Your task to perform on an android device: turn on the 24-hour format for clock Image 0: 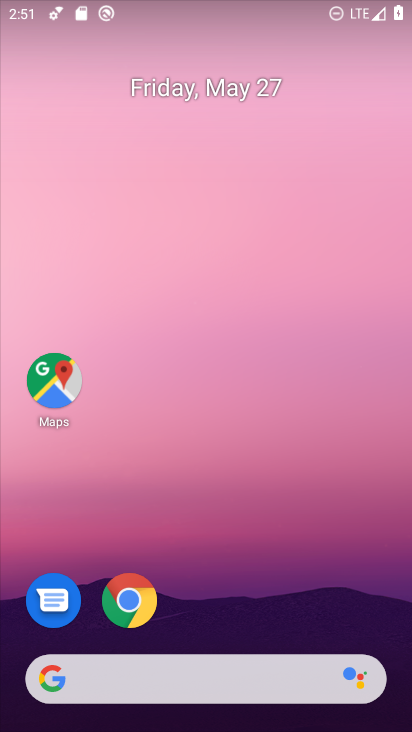
Step 0: drag from (240, 727) to (214, 63)
Your task to perform on an android device: turn on the 24-hour format for clock Image 1: 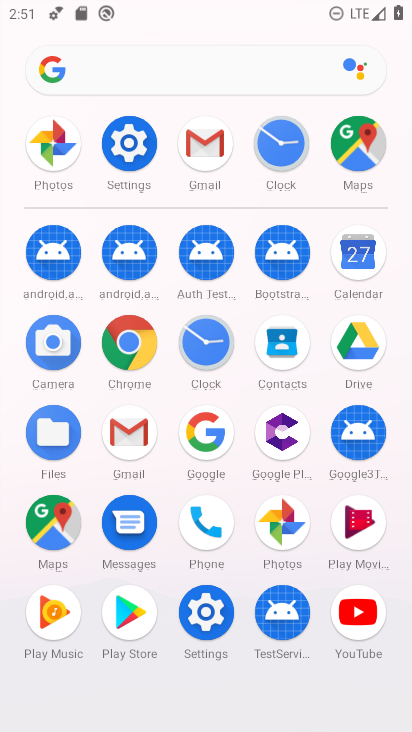
Step 1: click (213, 345)
Your task to perform on an android device: turn on the 24-hour format for clock Image 2: 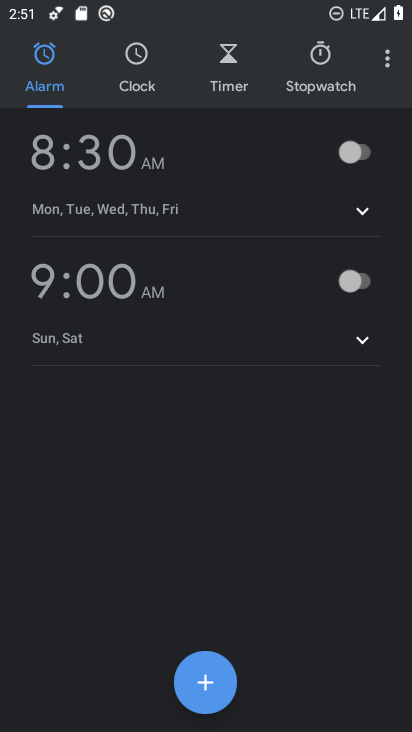
Step 2: click (388, 63)
Your task to perform on an android device: turn on the 24-hour format for clock Image 3: 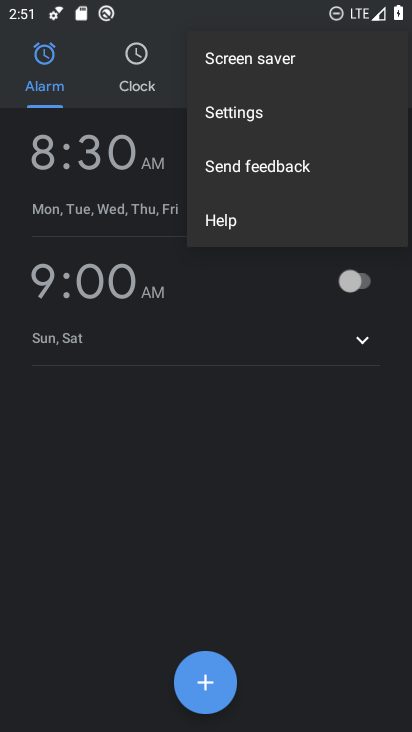
Step 3: click (232, 105)
Your task to perform on an android device: turn on the 24-hour format for clock Image 4: 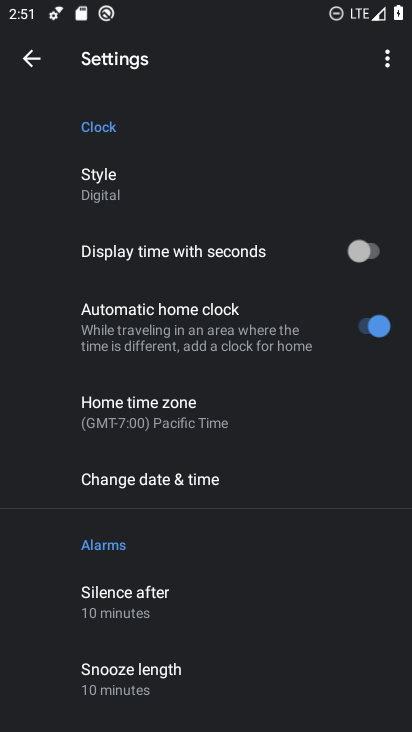
Step 4: click (142, 473)
Your task to perform on an android device: turn on the 24-hour format for clock Image 5: 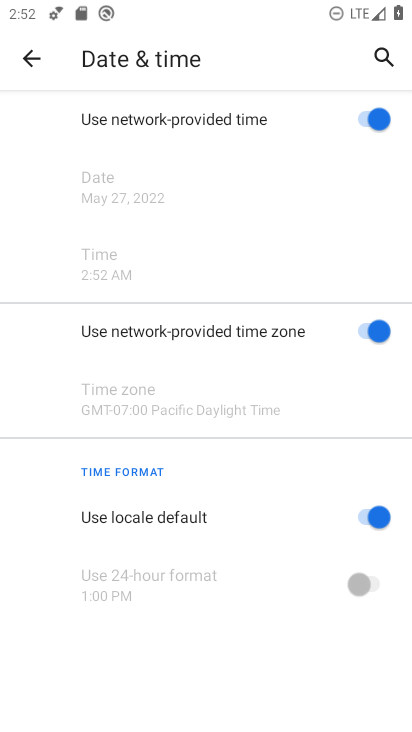
Step 5: click (364, 517)
Your task to perform on an android device: turn on the 24-hour format for clock Image 6: 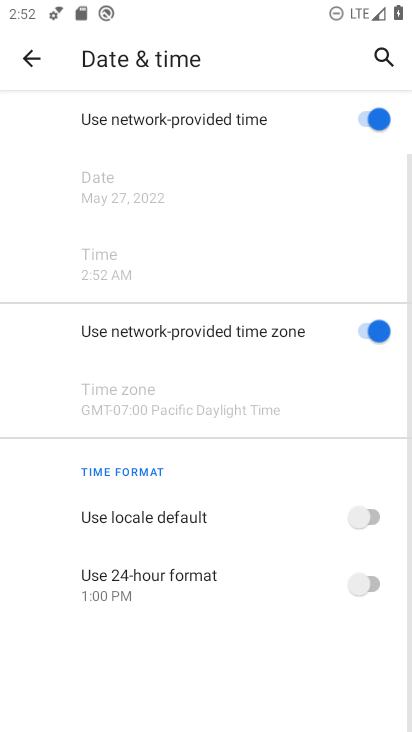
Step 6: click (376, 580)
Your task to perform on an android device: turn on the 24-hour format for clock Image 7: 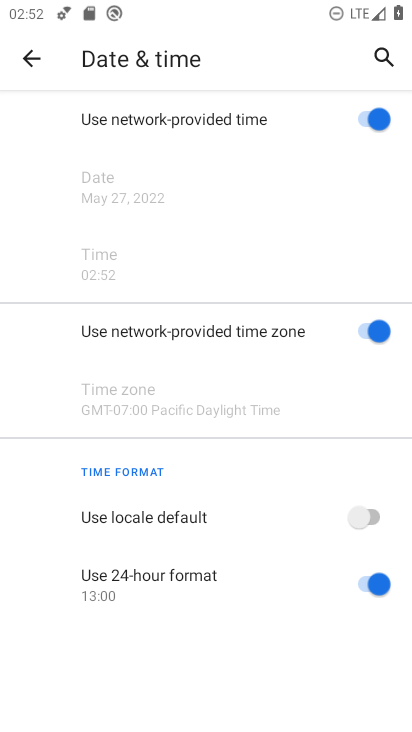
Step 7: task complete